Your task to perform on an android device: clear all cookies in the chrome app Image 0: 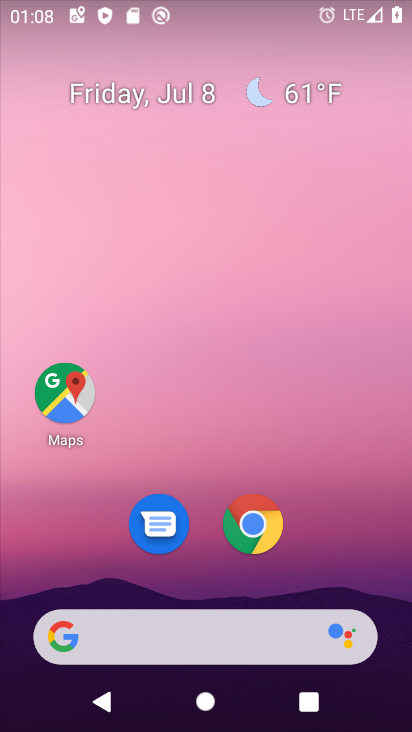
Step 0: click (263, 520)
Your task to perform on an android device: clear all cookies in the chrome app Image 1: 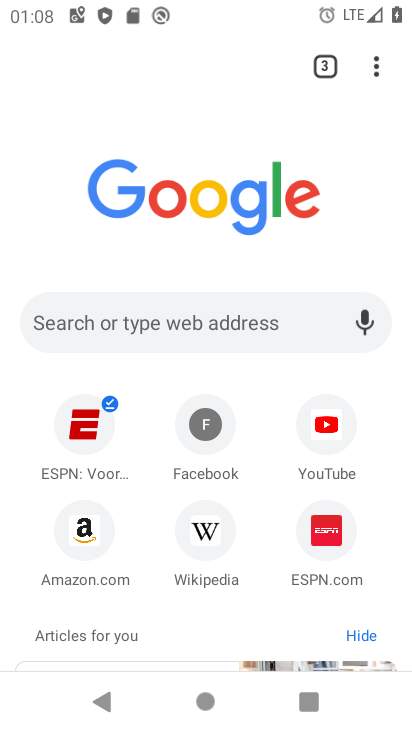
Step 1: click (380, 70)
Your task to perform on an android device: clear all cookies in the chrome app Image 2: 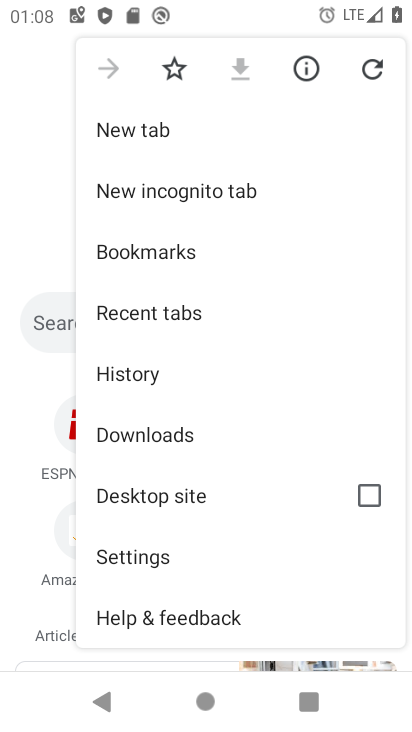
Step 2: click (151, 370)
Your task to perform on an android device: clear all cookies in the chrome app Image 3: 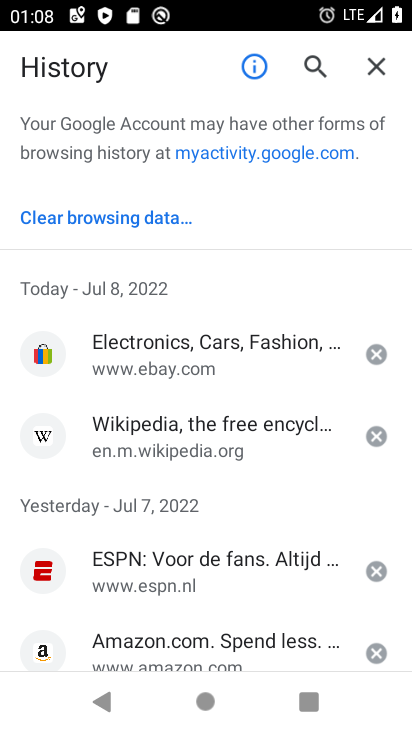
Step 3: click (125, 217)
Your task to perform on an android device: clear all cookies in the chrome app Image 4: 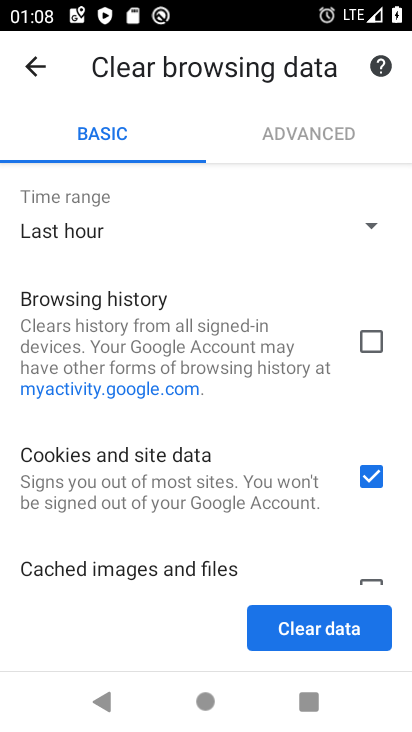
Step 4: drag from (177, 459) to (222, 331)
Your task to perform on an android device: clear all cookies in the chrome app Image 5: 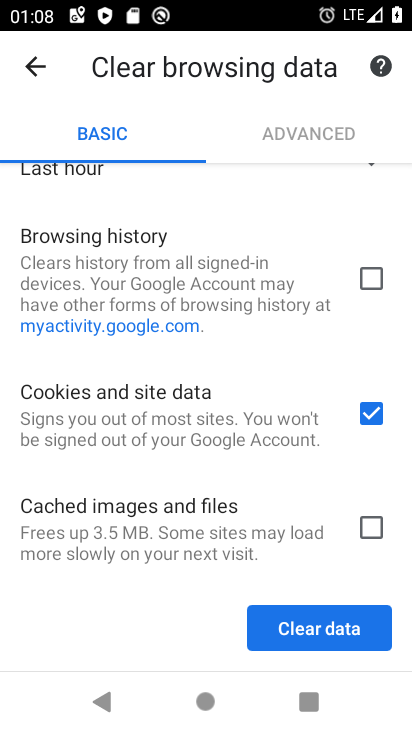
Step 5: click (326, 629)
Your task to perform on an android device: clear all cookies in the chrome app Image 6: 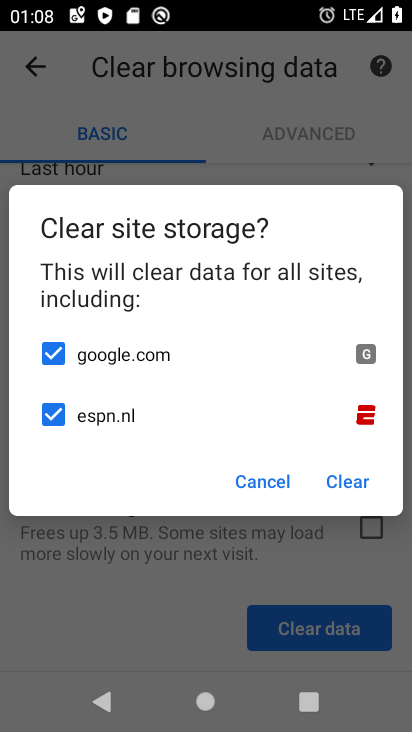
Step 6: click (350, 474)
Your task to perform on an android device: clear all cookies in the chrome app Image 7: 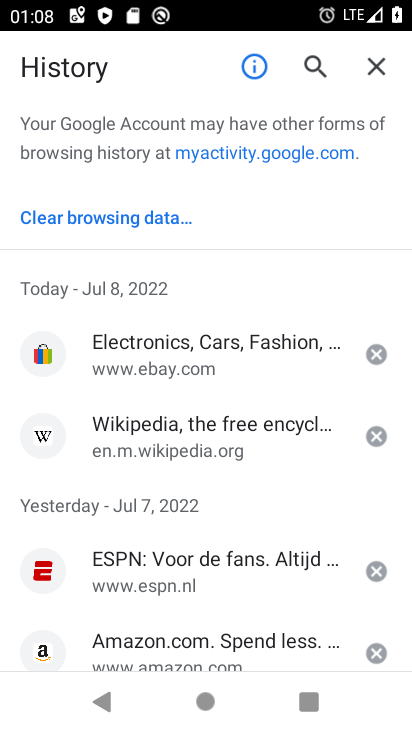
Step 7: task complete